Your task to perform on an android device: Open battery settings Image 0: 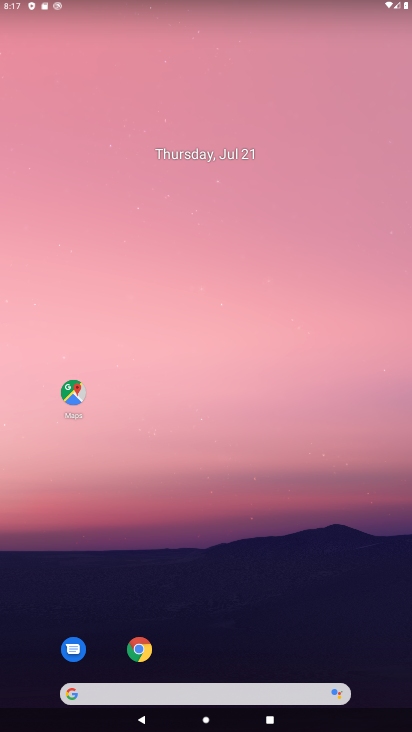
Step 0: drag from (182, 612) to (227, 131)
Your task to perform on an android device: Open battery settings Image 1: 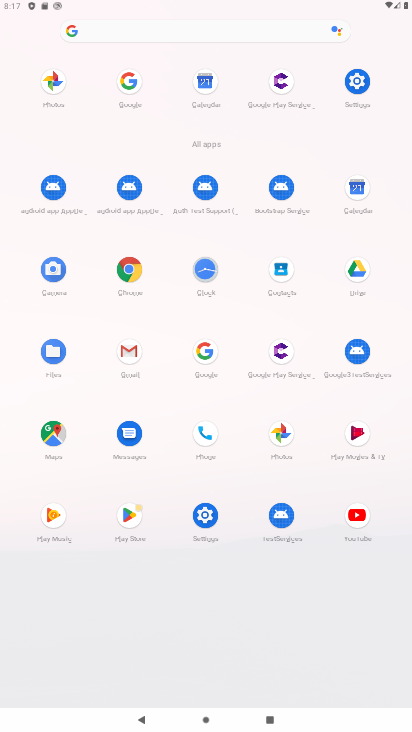
Step 1: click (355, 81)
Your task to perform on an android device: Open battery settings Image 2: 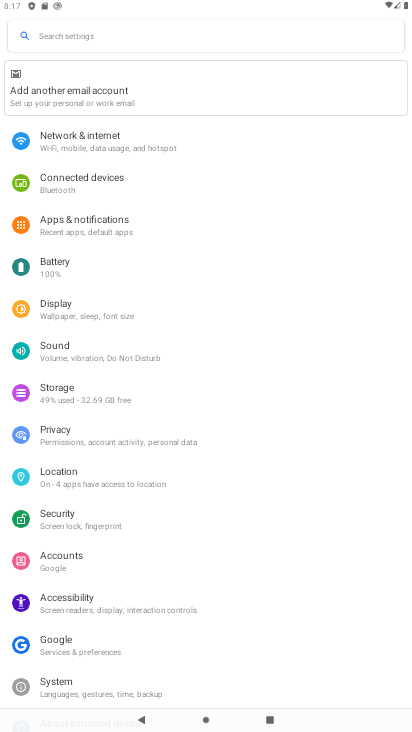
Step 2: click (75, 262)
Your task to perform on an android device: Open battery settings Image 3: 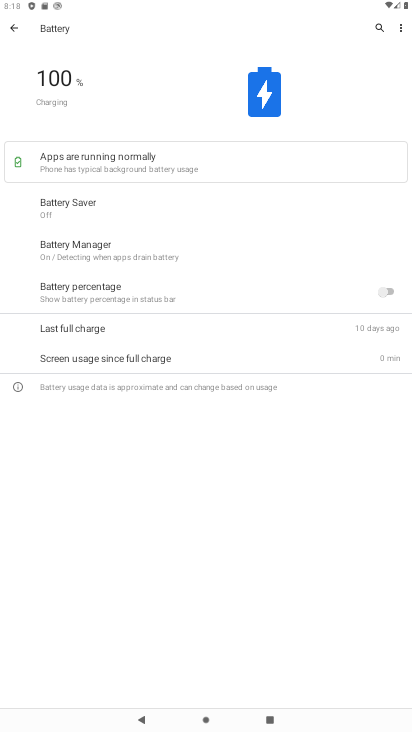
Step 3: task complete